Your task to perform on an android device: What's the weather today? Image 0: 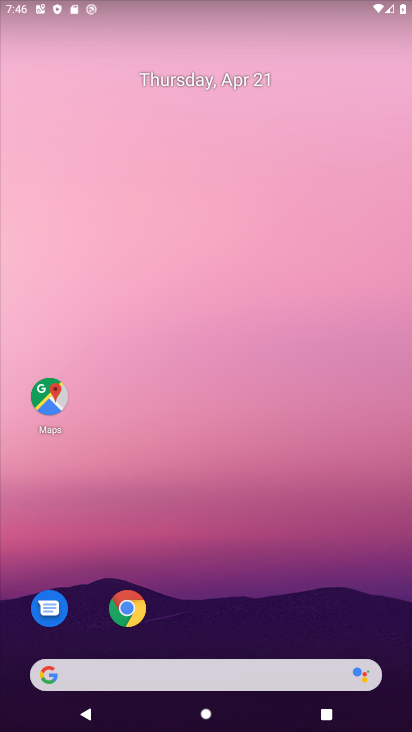
Step 0: click (228, 684)
Your task to perform on an android device: What's the weather today? Image 1: 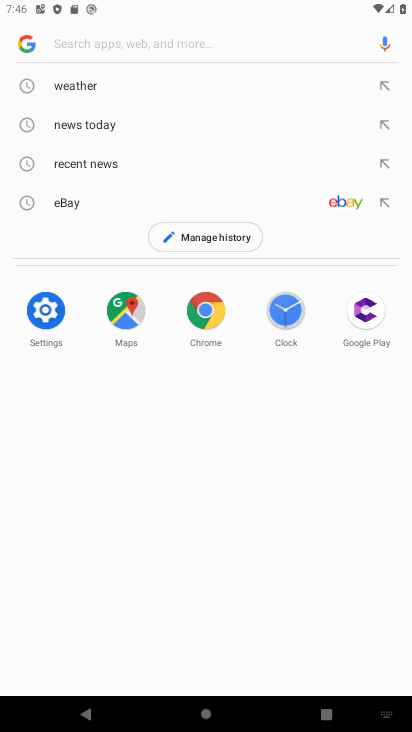
Step 1: click (58, 75)
Your task to perform on an android device: What's the weather today? Image 2: 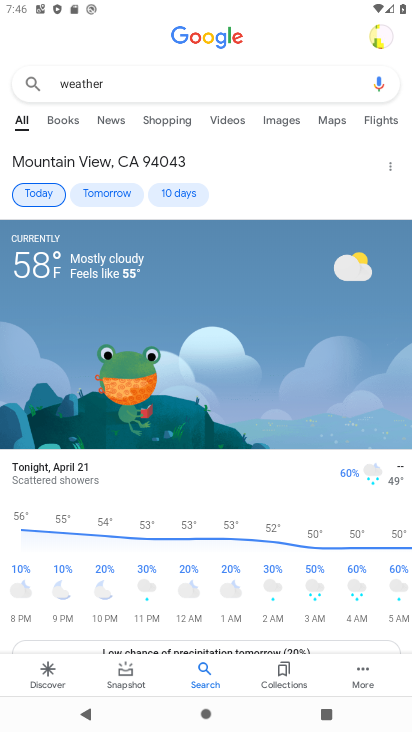
Step 2: task complete